Your task to perform on an android device: Show me popular videos on Youtube Image 0: 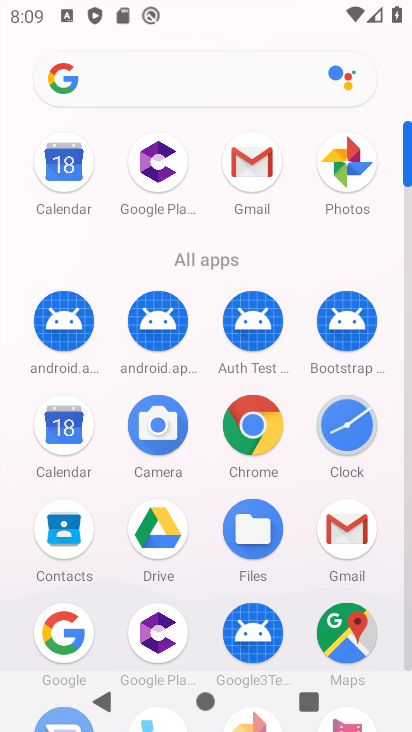
Step 0: drag from (267, 645) to (234, 144)
Your task to perform on an android device: Show me popular videos on Youtube Image 1: 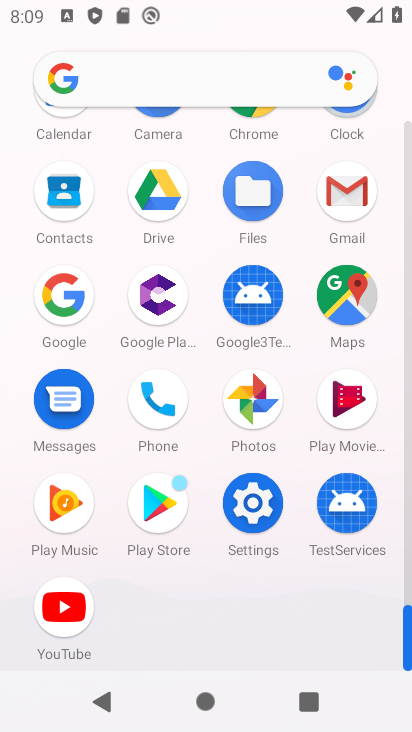
Step 1: click (68, 601)
Your task to perform on an android device: Show me popular videos on Youtube Image 2: 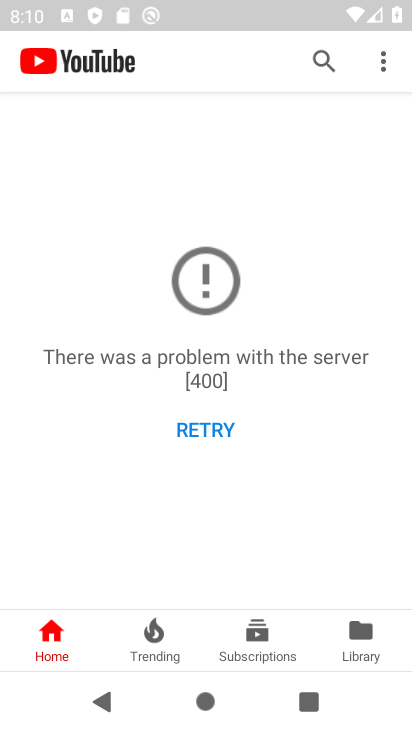
Step 2: click (219, 431)
Your task to perform on an android device: Show me popular videos on Youtube Image 3: 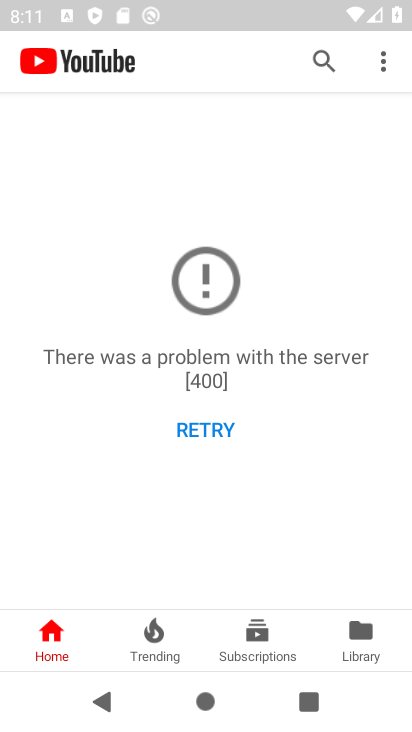
Step 3: task complete